Your task to perform on an android device: toggle priority inbox in the gmail app Image 0: 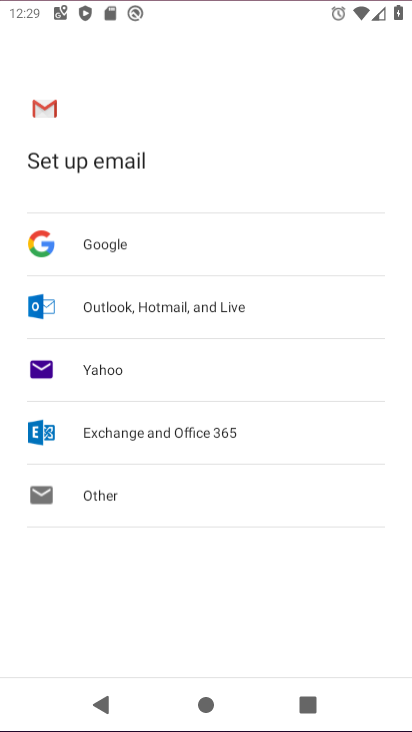
Step 0: drag from (299, 690) to (182, 126)
Your task to perform on an android device: toggle priority inbox in the gmail app Image 1: 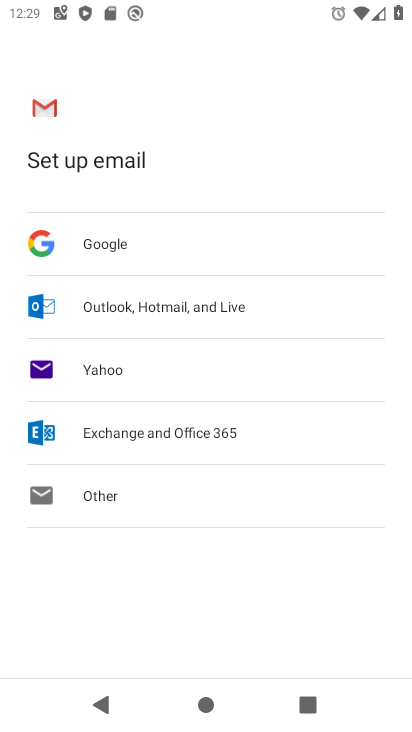
Step 1: press back button
Your task to perform on an android device: toggle priority inbox in the gmail app Image 2: 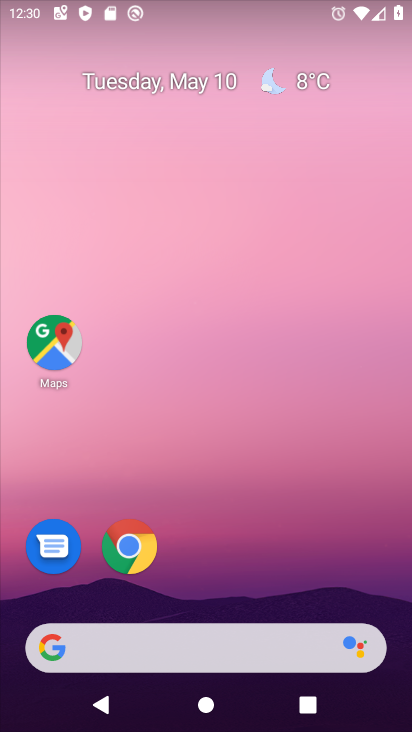
Step 2: drag from (367, 579) to (31, 56)
Your task to perform on an android device: toggle priority inbox in the gmail app Image 3: 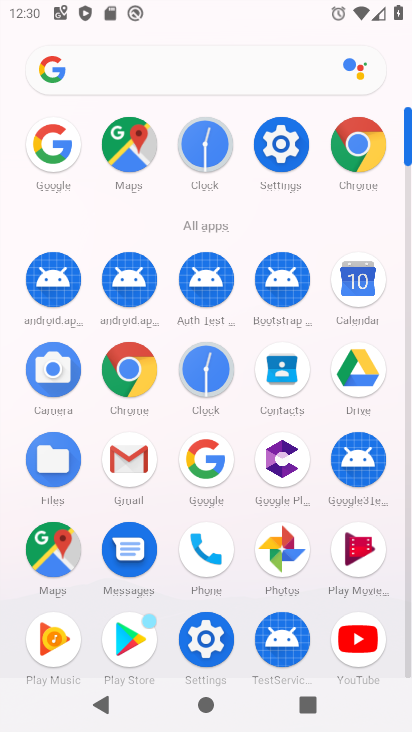
Step 3: click (126, 461)
Your task to perform on an android device: toggle priority inbox in the gmail app Image 4: 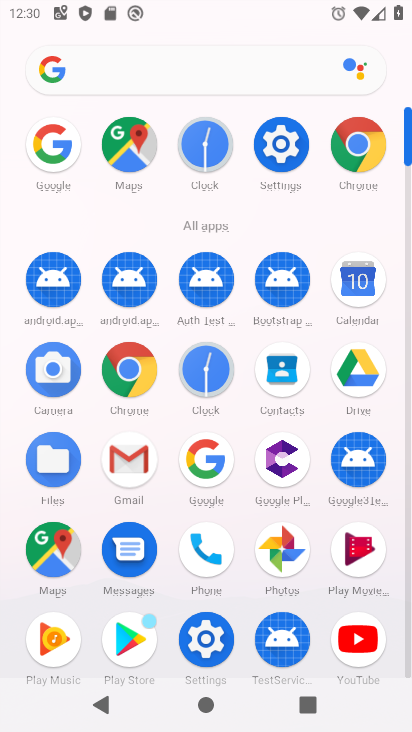
Step 4: click (127, 461)
Your task to perform on an android device: toggle priority inbox in the gmail app Image 5: 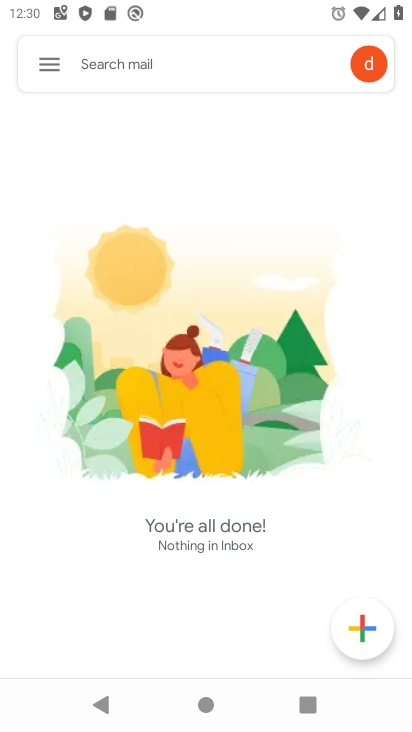
Step 5: click (46, 40)
Your task to perform on an android device: toggle priority inbox in the gmail app Image 6: 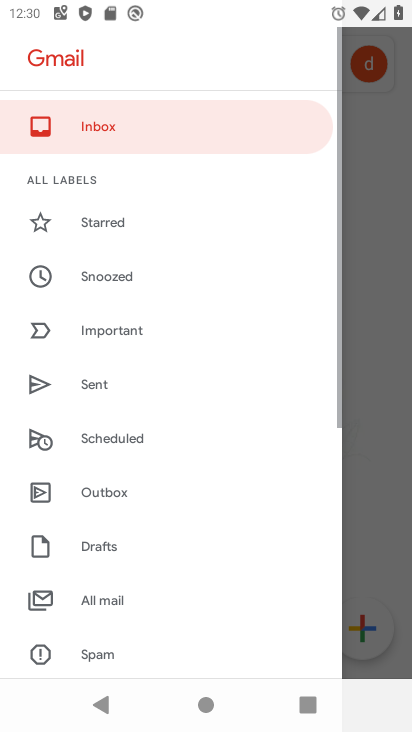
Step 6: drag from (124, 531) to (74, 118)
Your task to perform on an android device: toggle priority inbox in the gmail app Image 7: 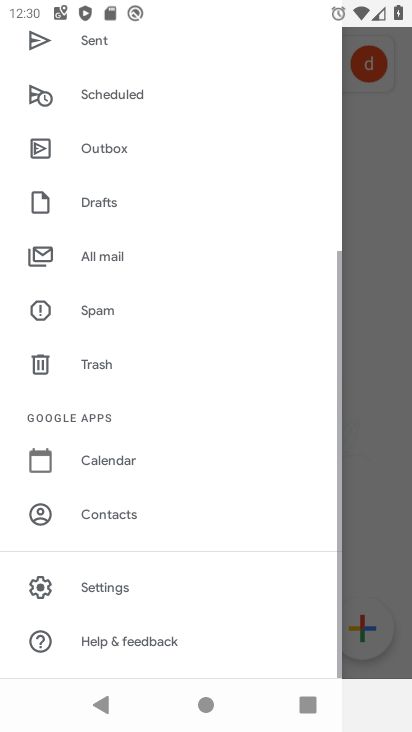
Step 7: drag from (187, 368) to (156, 67)
Your task to perform on an android device: toggle priority inbox in the gmail app Image 8: 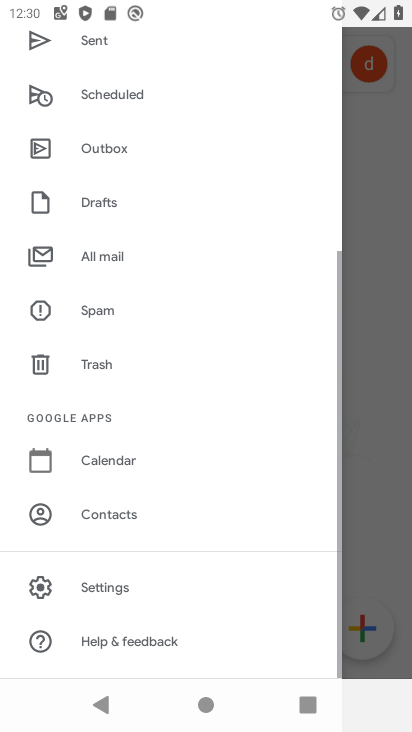
Step 8: drag from (133, 364) to (120, 123)
Your task to perform on an android device: toggle priority inbox in the gmail app Image 9: 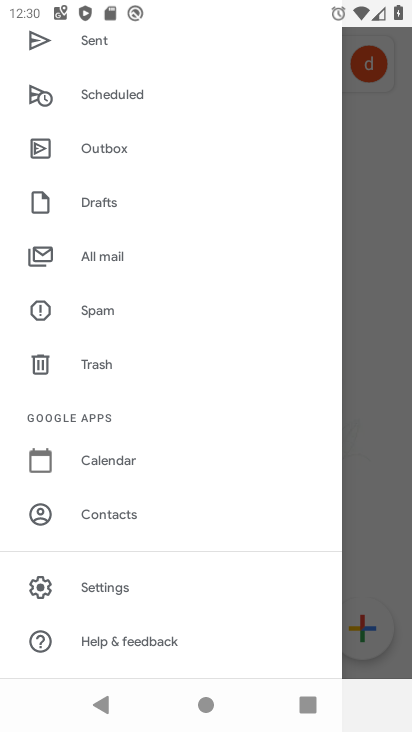
Step 9: click (103, 576)
Your task to perform on an android device: toggle priority inbox in the gmail app Image 10: 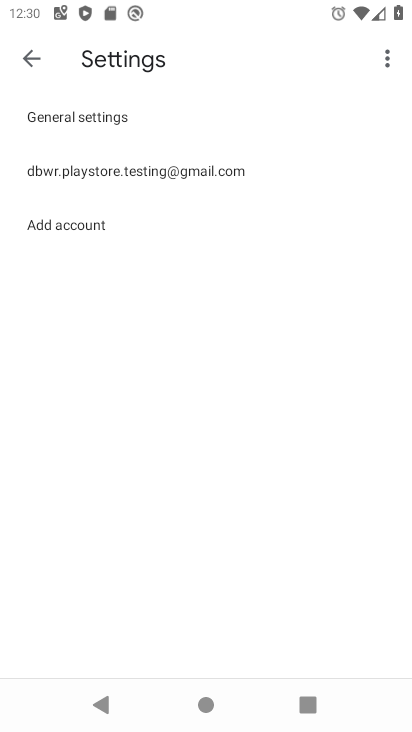
Step 10: click (105, 176)
Your task to perform on an android device: toggle priority inbox in the gmail app Image 11: 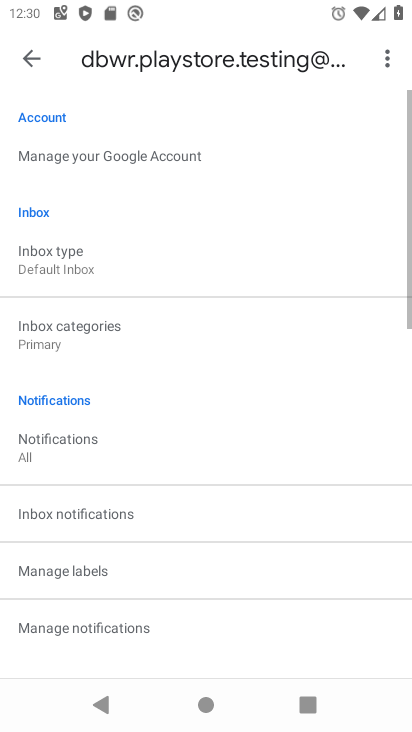
Step 11: drag from (177, 512) to (167, 53)
Your task to perform on an android device: toggle priority inbox in the gmail app Image 12: 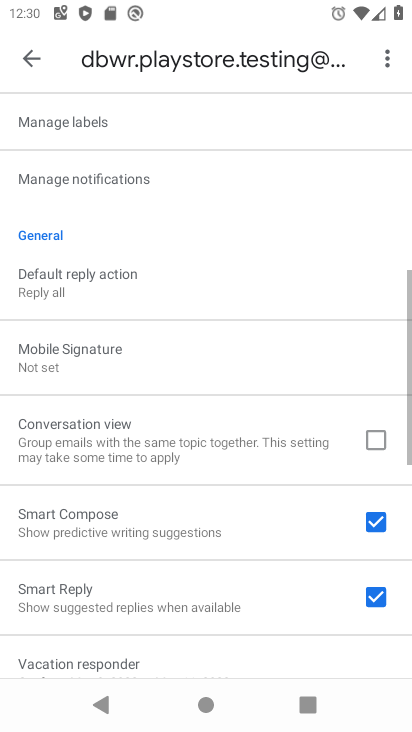
Step 12: drag from (178, 507) to (167, 153)
Your task to perform on an android device: toggle priority inbox in the gmail app Image 13: 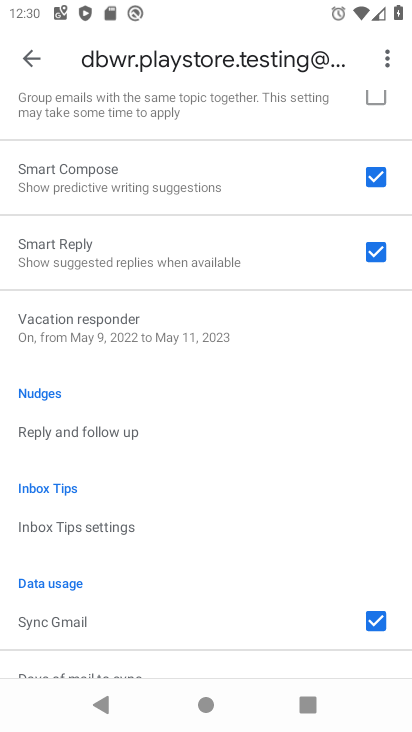
Step 13: drag from (166, 211) to (166, 79)
Your task to perform on an android device: toggle priority inbox in the gmail app Image 14: 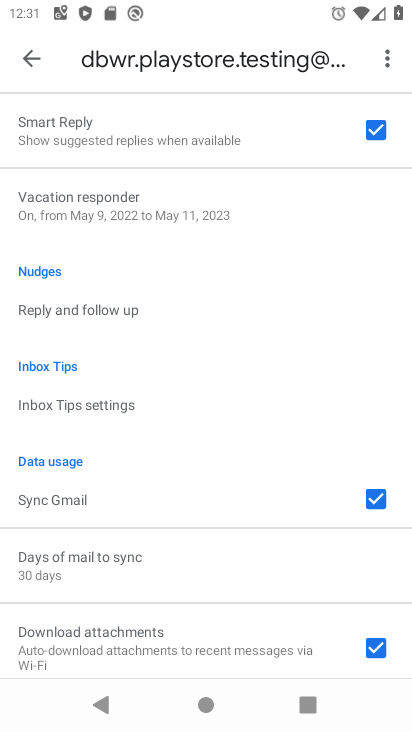
Step 14: drag from (160, 227) to (291, 596)
Your task to perform on an android device: toggle priority inbox in the gmail app Image 15: 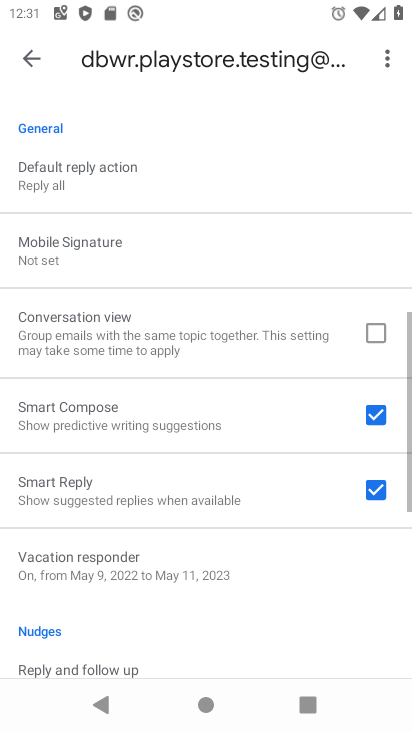
Step 15: drag from (230, 389) to (282, 557)
Your task to perform on an android device: toggle priority inbox in the gmail app Image 16: 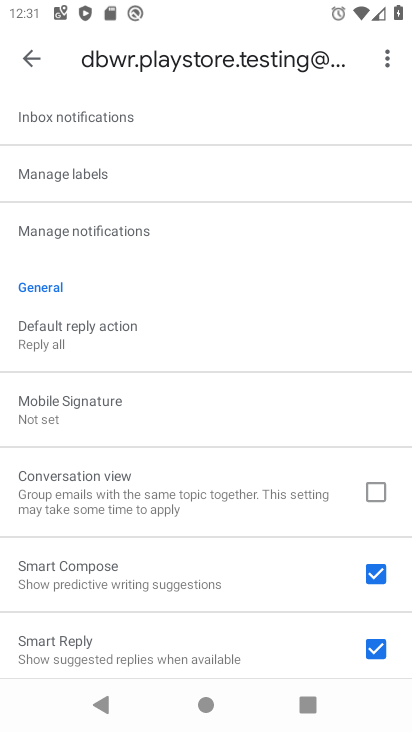
Step 16: click (133, 481)
Your task to perform on an android device: toggle priority inbox in the gmail app Image 17: 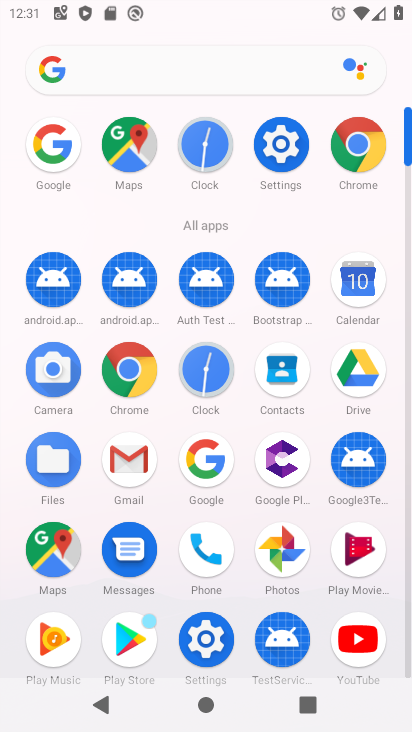
Step 17: click (285, 143)
Your task to perform on an android device: toggle priority inbox in the gmail app Image 18: 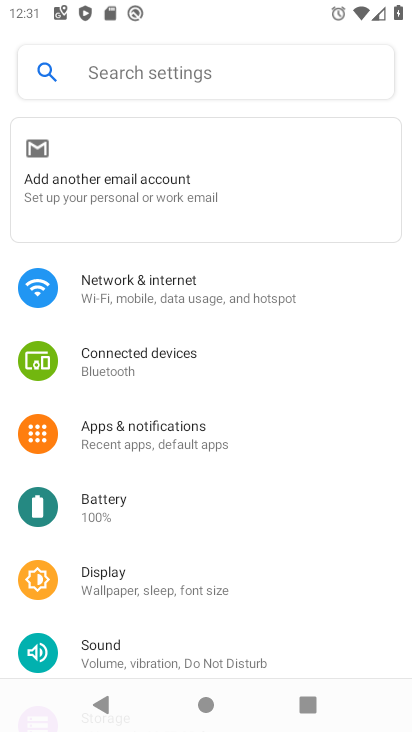
Step 18: press back button
Your task to perform on an android device: toggle priority inbox in the gmail app Image 19: 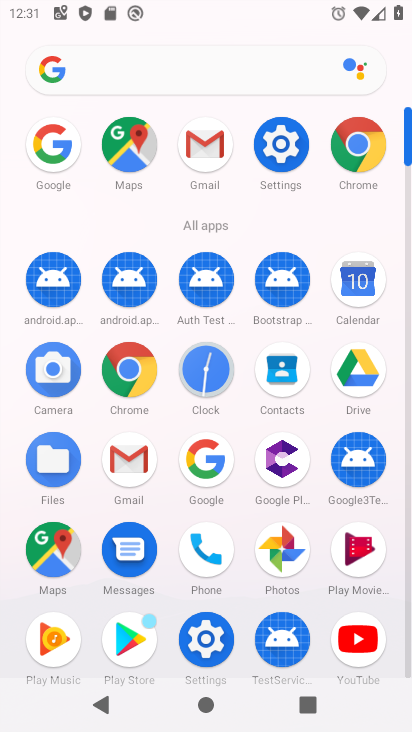
Step 19: click (113, 456)
Your task to perform on an android device: toggle priority inbox in the gmail app Image 20: 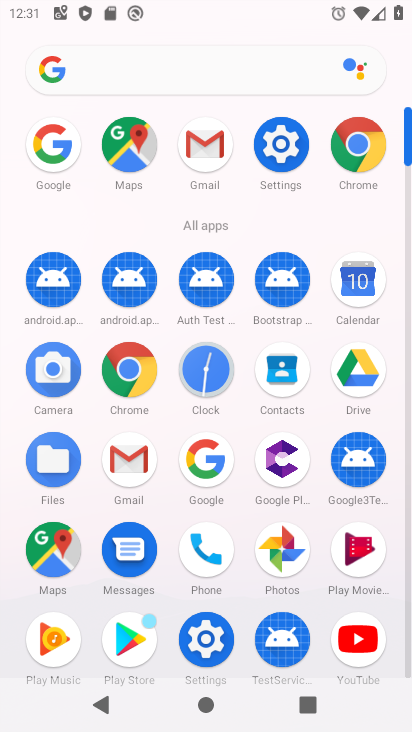
Step 20: click (115, 461)
Your task to perform on an android device: toggle priority inbox in the gmail app Image 21: 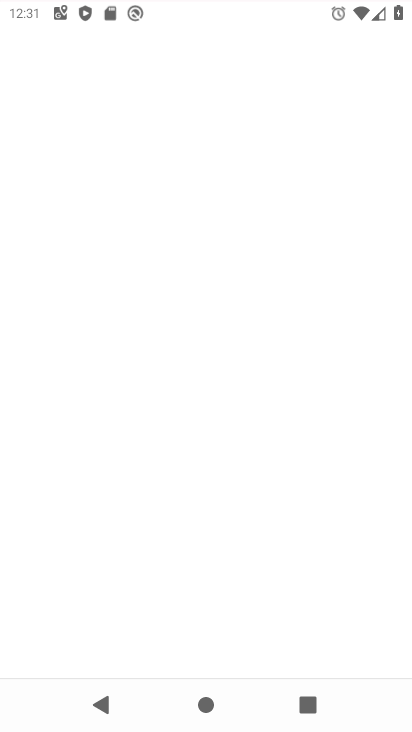
Step 21: click (115, 461)
Your task to perform on an android device: toggle priority inbox in the gmail app Image 22: 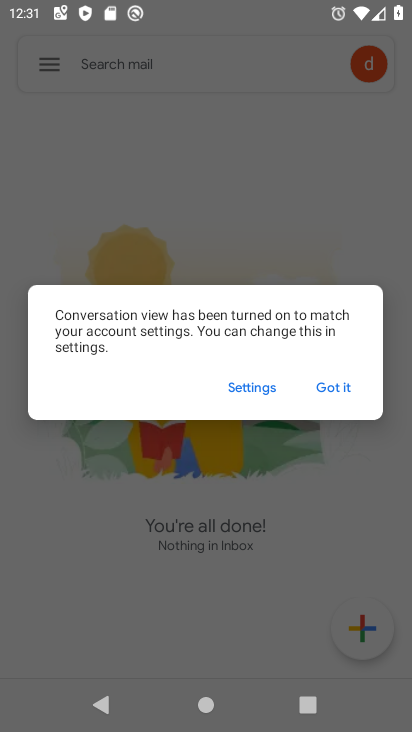
Step 22: click (245, 386)
Your task to perform on an android device: toggle priority inbox in the gmail app Image 23: 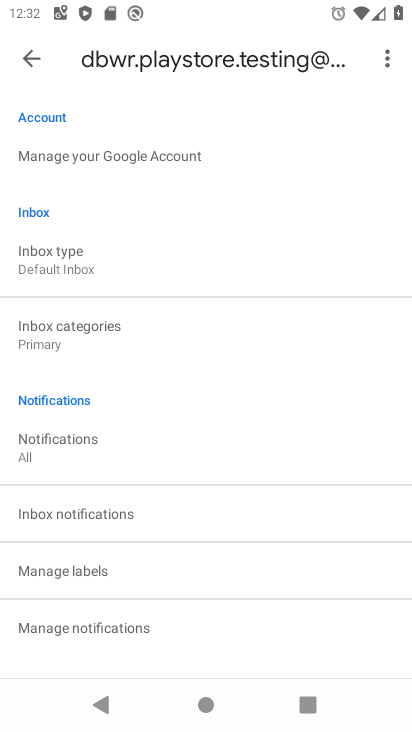
Step 23: click (45, 259)
Your task to perform on an android device: toggle priority inbox in the gmail app Image 24: 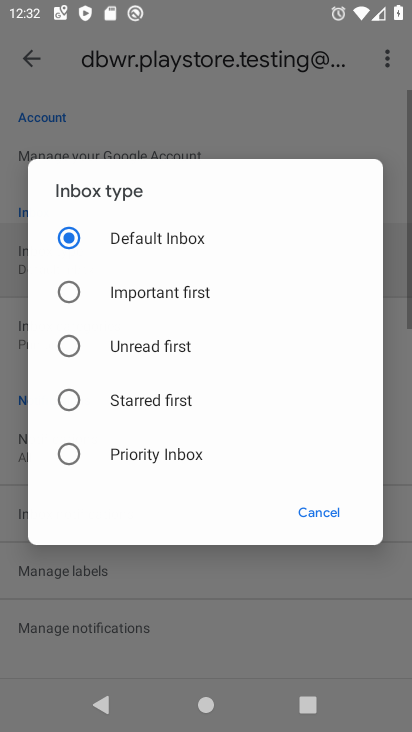
Step 24: click (45, 259)
Your task to perform on an android device: toggle priority inbox in the gmail app Image 25: 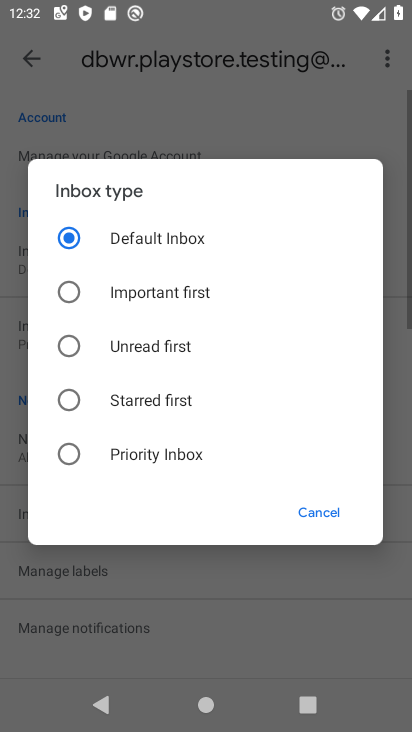
Step 25: click (46, 259)
Your task to perform on an android device: toggle priority inbox in the gmail app Image 26: 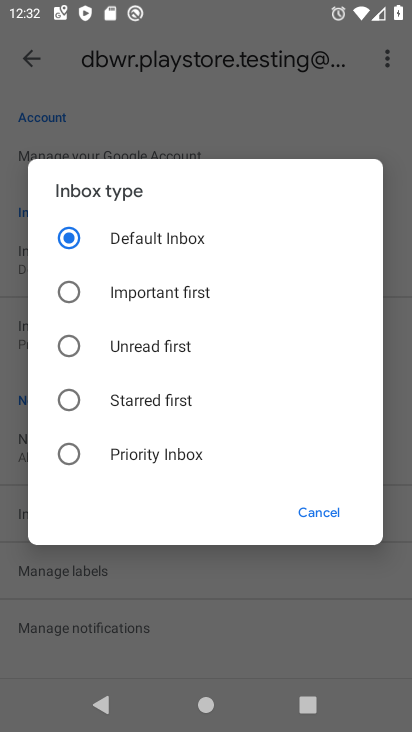
Step 26: click (66, 293)
Your task to perform on an android device: toggle priority inbox in the gmail app Image 27: 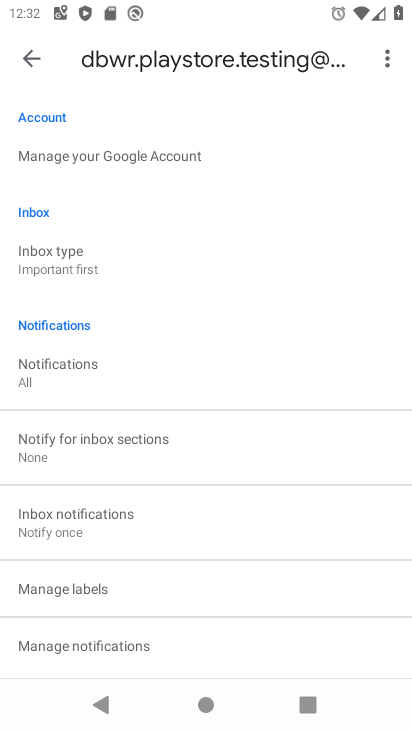
Step 27: click (25, 58)
Your task to perform on an android device: toggle priority inbox in the gmail app Image 28: 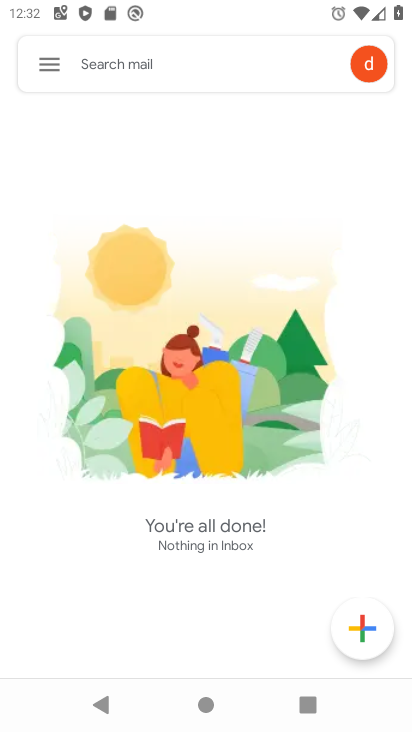
Step 28: click (37, 65)
Your task to perform on an android device: toggle priority inbox in the gmail app Image 29: 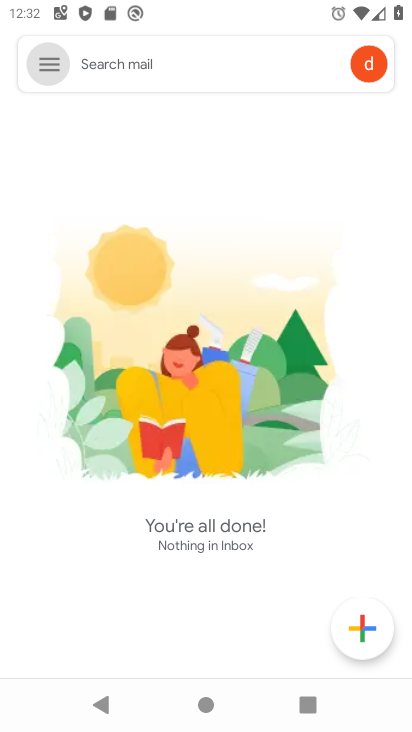
Step 29: click (41, 65)
Your task to perform on an android device: toggle priority inbox in the gmail app Image 30: 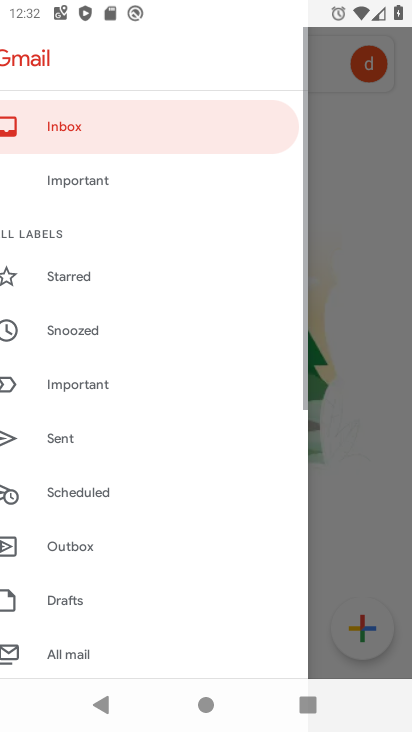
Step 30: click (42, 65)
Your task to perform on an android device: toggle priority inbox in the gmail app Image 31: 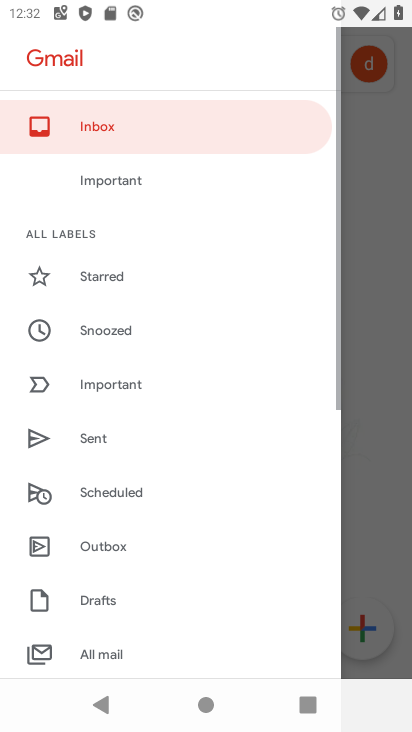
Step 31: click (43, 66)
Your task to perform on an android device: toggle priority inbox in the gmail app Image 32: 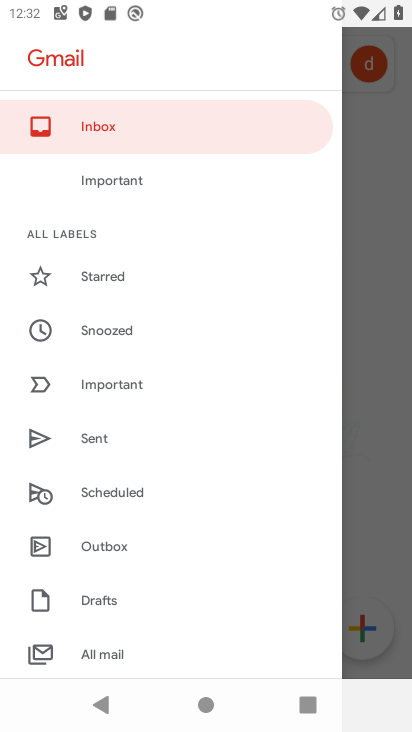
Step 32: drag from (173, 591) to (117, 46)
Your task to perform on an android device: toggle priority inbox in the gmail app Image 33: 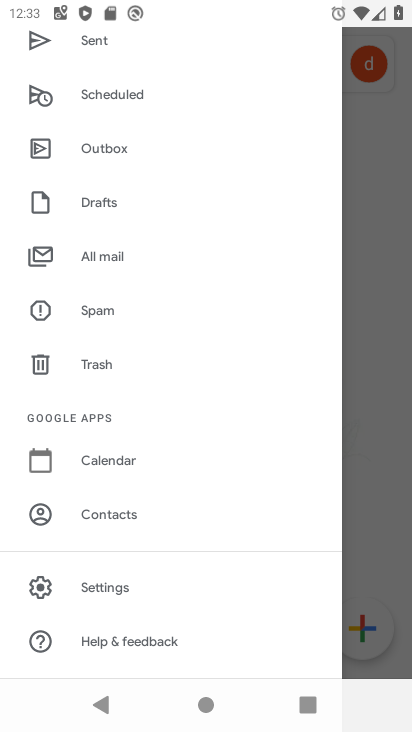
Step 33: click (113, 578)
Your task to perform on an android device: toggle priority inbox in the gmail app Image 34: 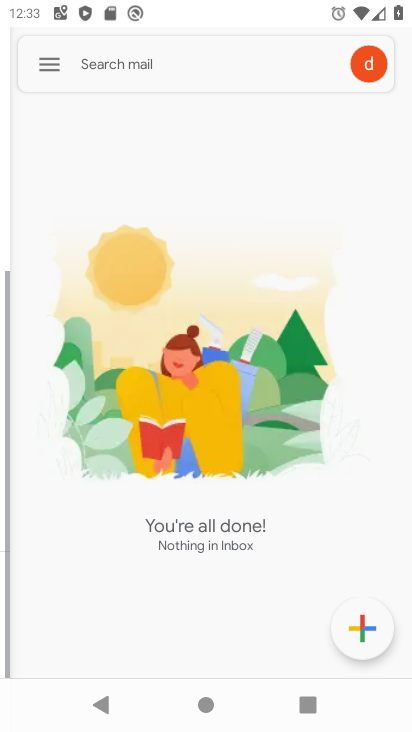
Step 34: click (113, 580)
Your task to perform on an android device: toggle priority inbox in the gmail app Image 35: 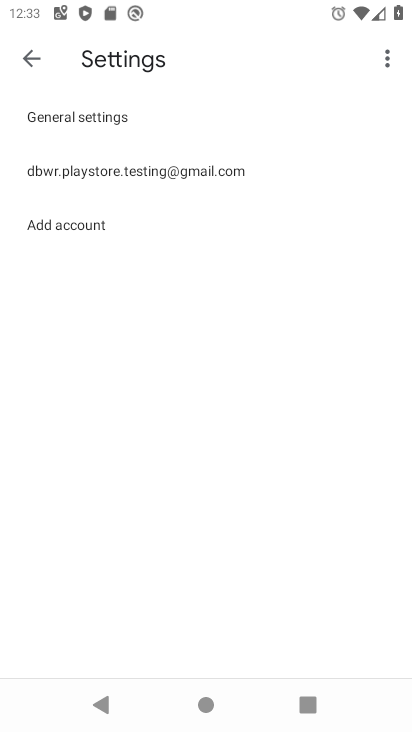
Step 35: click (127, 163)
Your task to perform on an android device: toggle priority inbox in the gmail app Image 36: 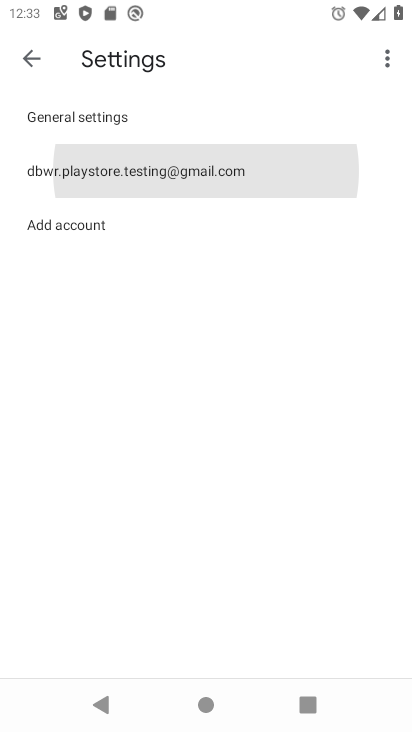
Step 36: click (127, 163)
Your task to perform on an android device: toggle priority inbox in the gmail app Image 37: 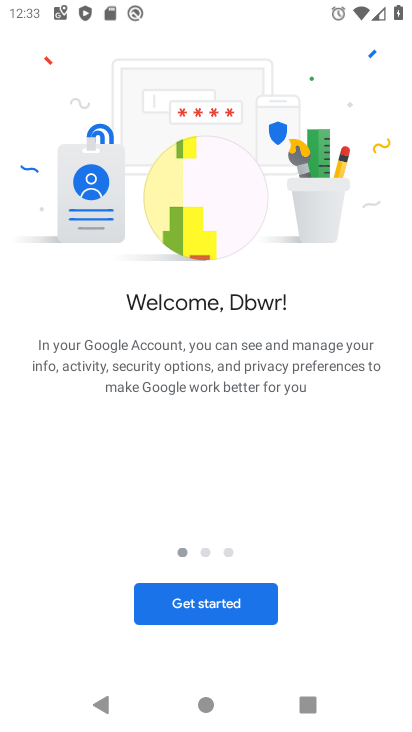
Step 37: click (210, 612)
Your task to perform on an android device: toggle priority inbox in the gmail app Image 38: 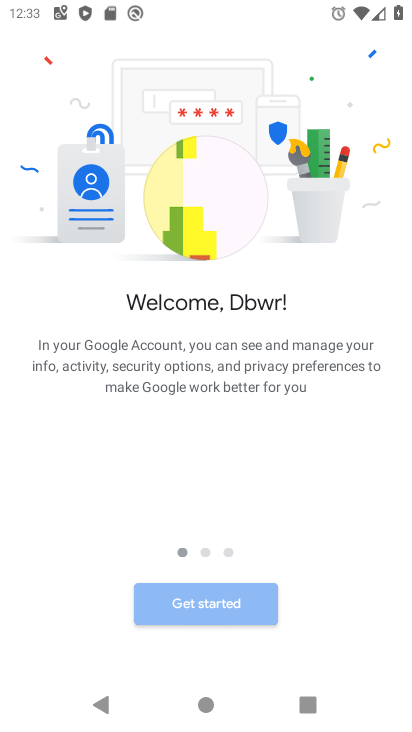
Step 38: click (210, 610)
Your task to perform on an android device: toggle priority inbox in the gmail app Image 39: 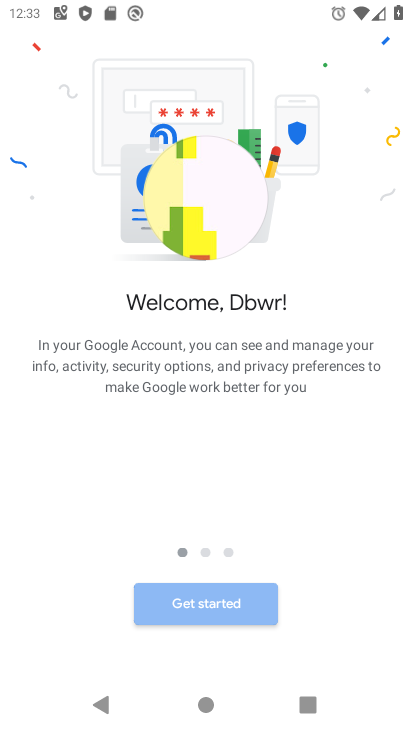
Step 39: click (213, 611)
Your task to perform on an android device: toggle priority inbox in the gmail app Image 40: 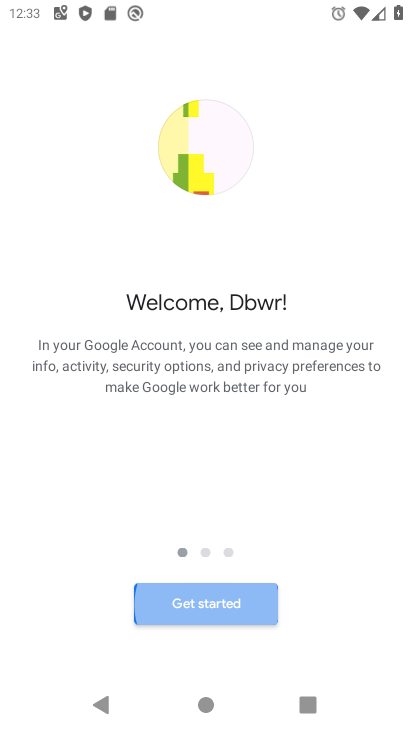
Step 40: click (215, 612)
Your task to perform on an android device: toggle priority inbox in the gmail app Image 41: 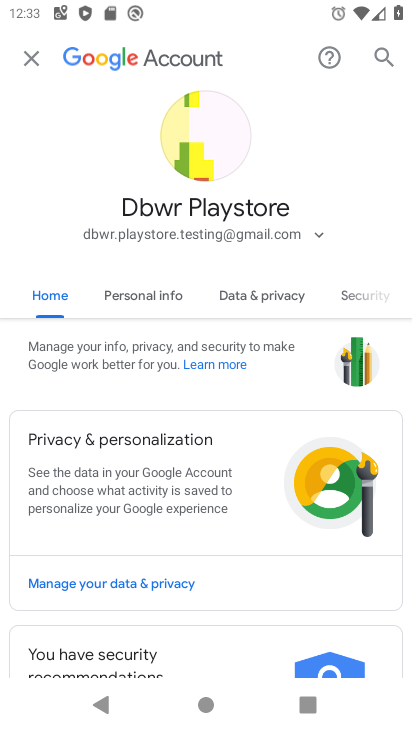
Step 41: click (34, 48)
Your task to perform on an android device: toggle priority inbox in the gmail app Image 42: 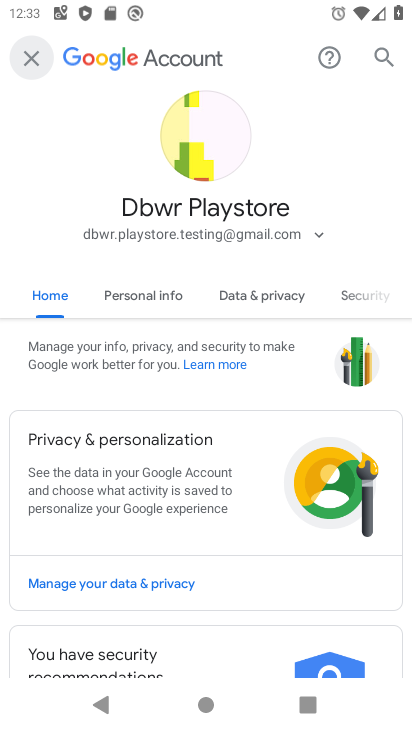
Step 42: click (34, 48)
Your task to perform on an android device: toggle priority inbox in the gmail app Image 43: 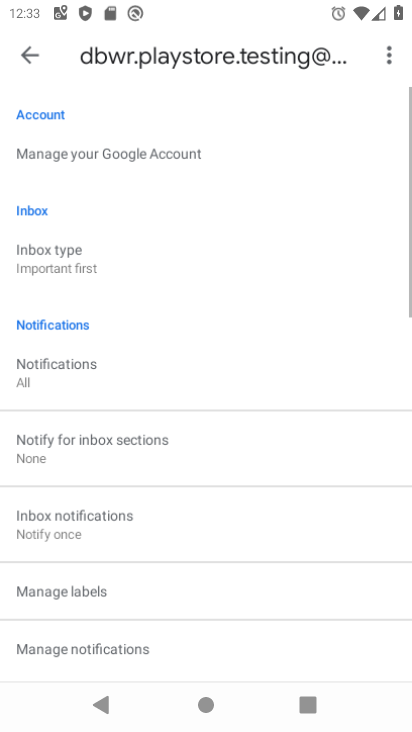
Step 43: click (38, 51)
Your task to perform on an android device: toggle priority inbox in the gmail app Image 44: 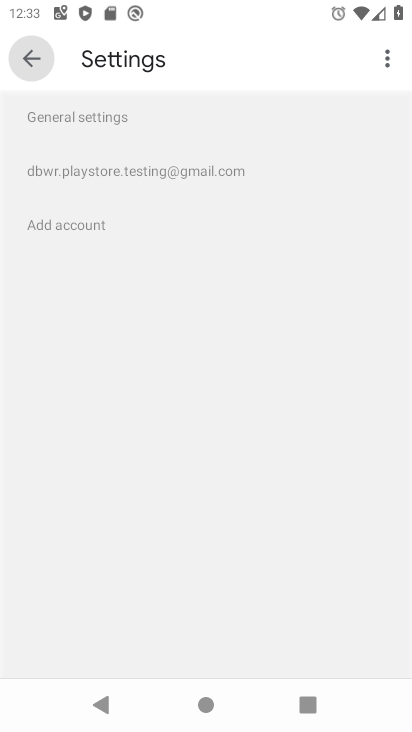
Step 44: click (42, 58)
Your task to perform on an android device: toggle priority inbox in the gmail app Image 45: 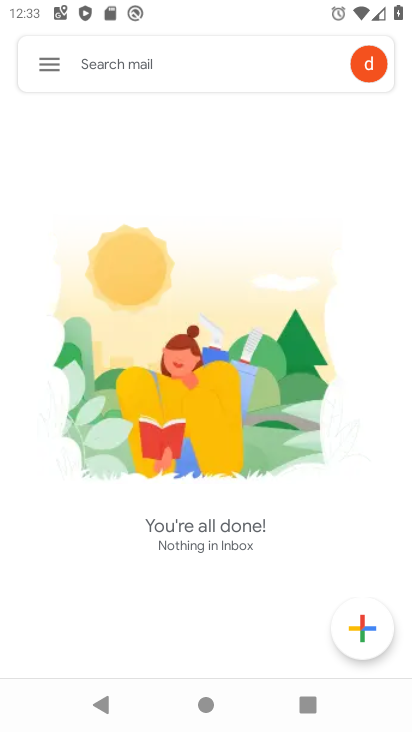
Step 45: click (48, 66)
Your task to perform on an android device: toggle priority inbox in the gmail app Image 46: 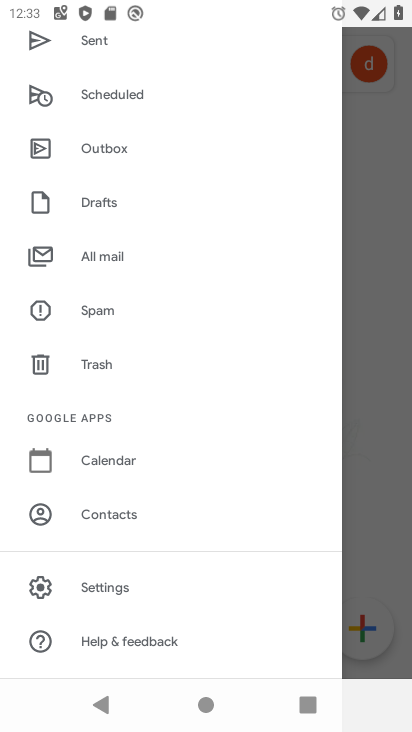
Step 46: click (103, 578)
Your task to perform on an android device: toggle priority inbox in the gmail app Image 47: 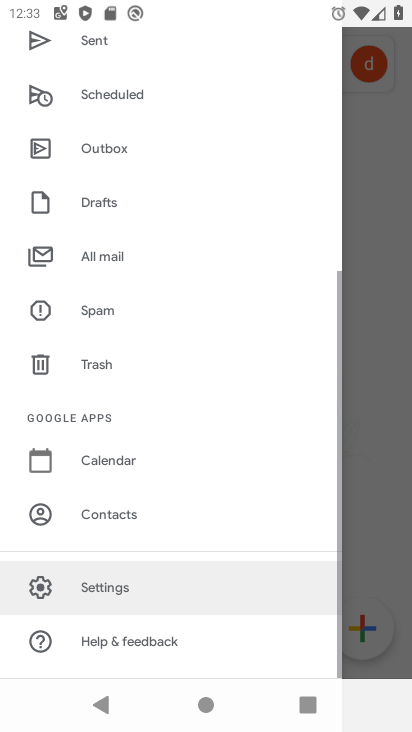
Step 47: click (103, 578)
Your task to perform on an android device: toggle priority inbox in the gmail app Image 48: 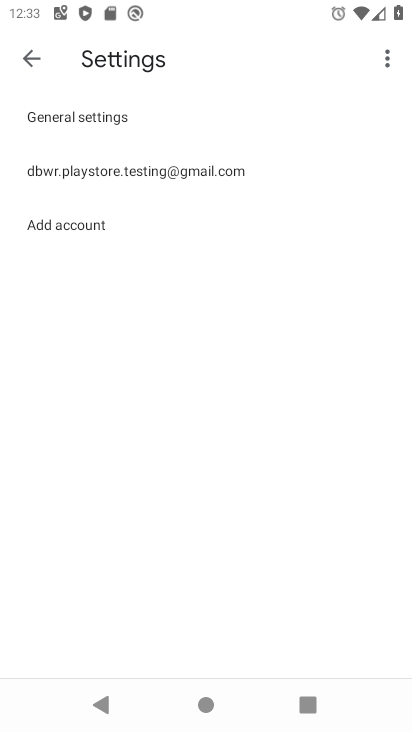
Step 48: click (98, 174)
Your task to perform on an android device: toggle priority inbox in the gmail app Image 49: 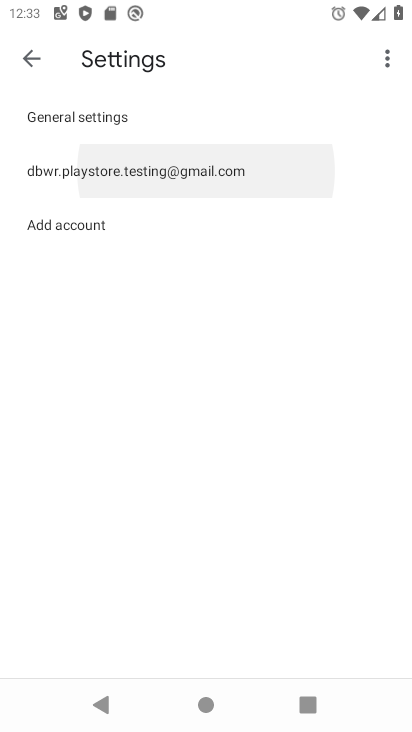
Step 49: click (98, 175)
Your task to perform on an android device: toggle priority inbox in the gmail app Image 50: 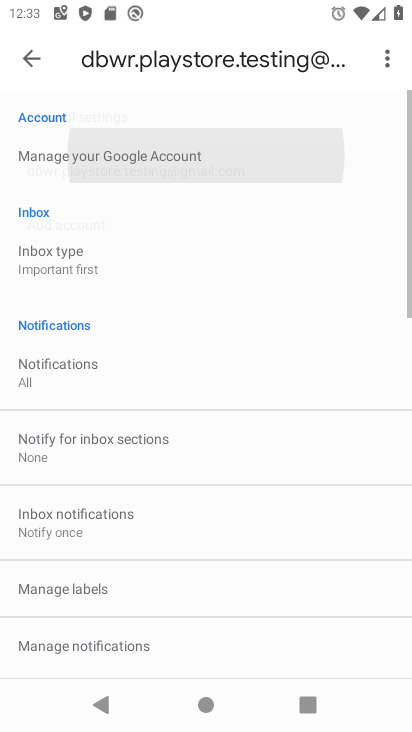
Step 50: click (98, 175)
Your task to perform on an android device: toggle priority inbox in the gmail app Image 51: 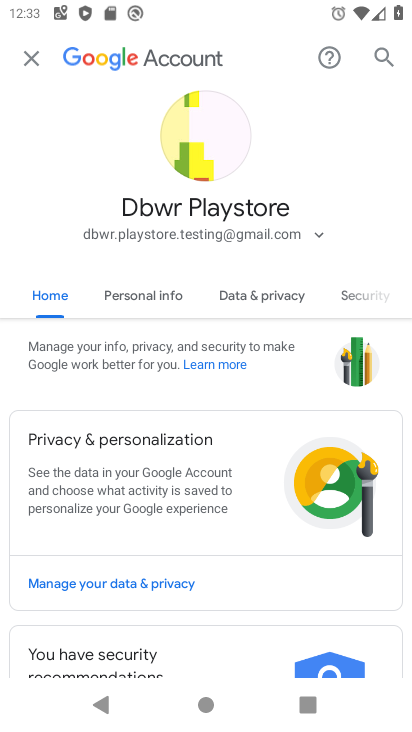
Step 51: click (24, 56)
Your task to perform on an android device: toggle priority inbox in the gmail app Image 52: 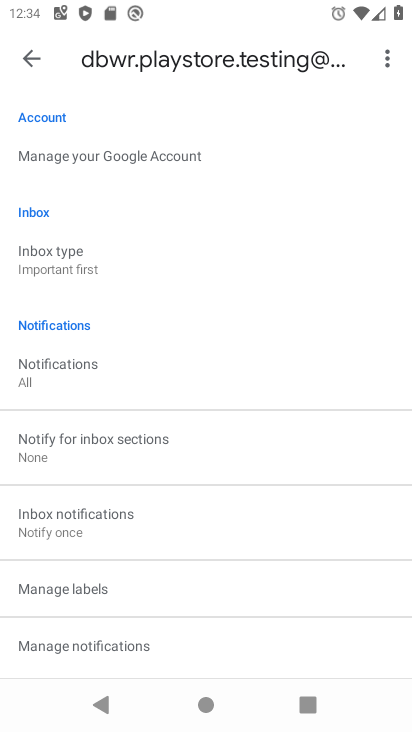
Step 52: click (52, 262)
Your task to perform on an android device: toggle priority inbox in the gmail app Image 53: 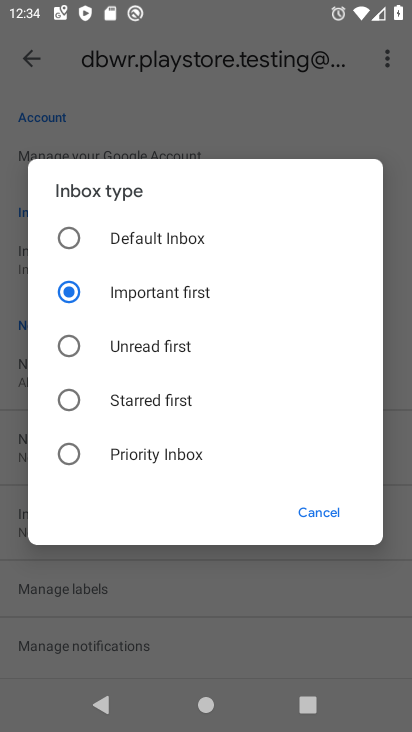
Step 53: click (66, 455)
Your task to perform on an android device: toggle priority inbox in the gmail app Image 54: 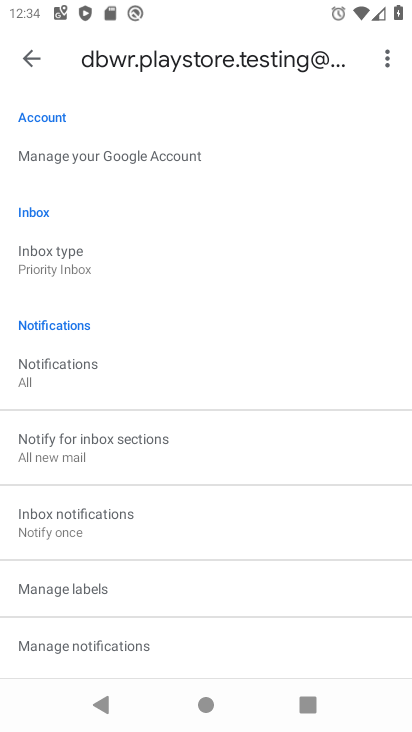
Step 54: task complete